Your task to perform on an android device: Go to Wikipedia Image 0: 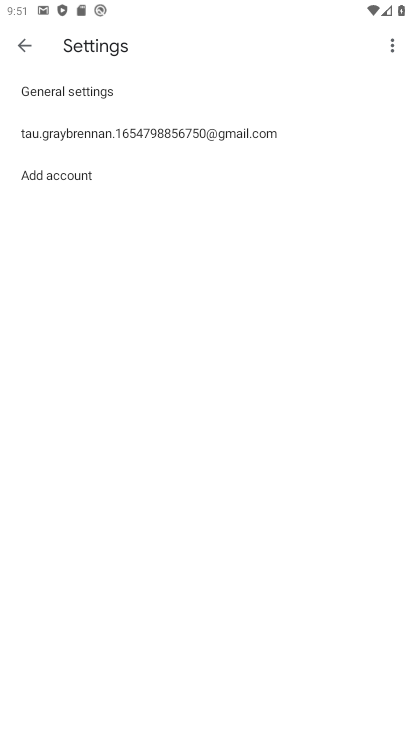
Step 0: press home button
Your task to perform on an android device: Go to Wikipedia Image 1: 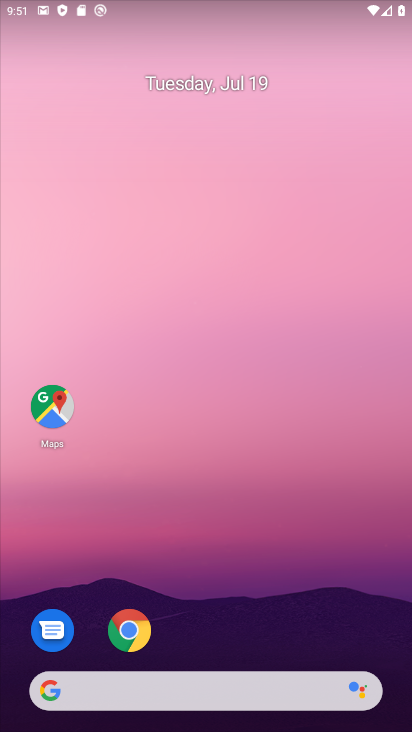
Step 1: click (114, 644)
Your task to perform on an android device: Go to Wikipedia Image 2: 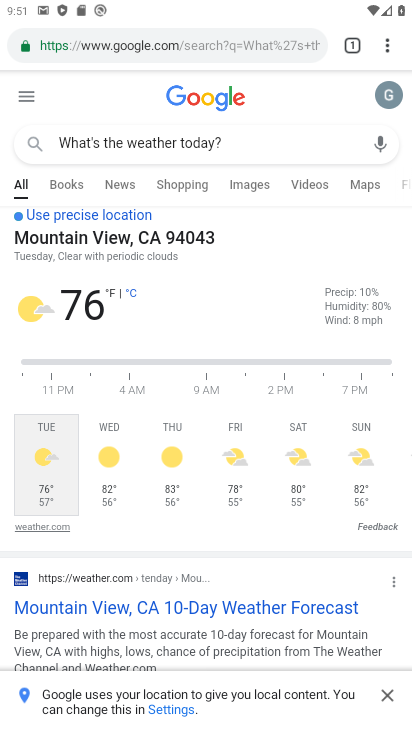
Step 2: click (358, 44)
Your task to perform on an android device: Go to Wikipedia Image 3: 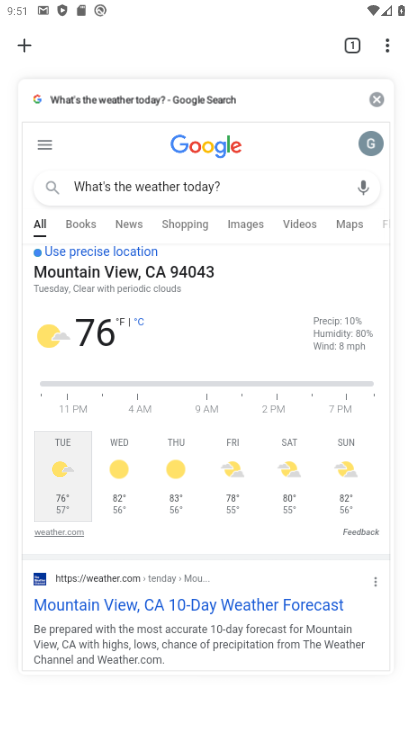
Step 3: click (23, 46)
Your task to perform on an android device: Go to Wikipedia Image 4: 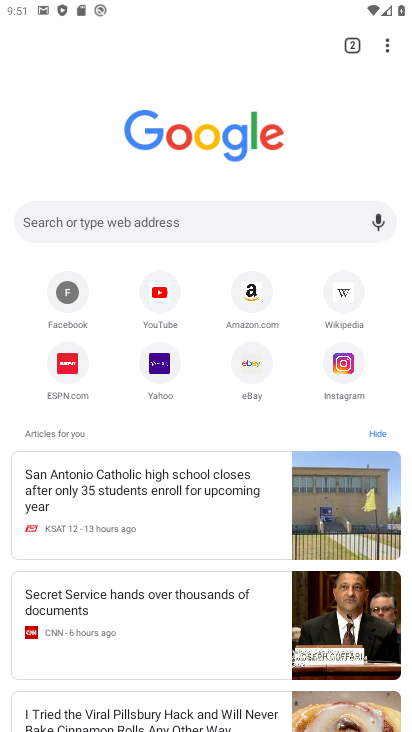
Step 4: click (351, 295)
Your task to perform on an android device: Go to Wikipedia Image 5: 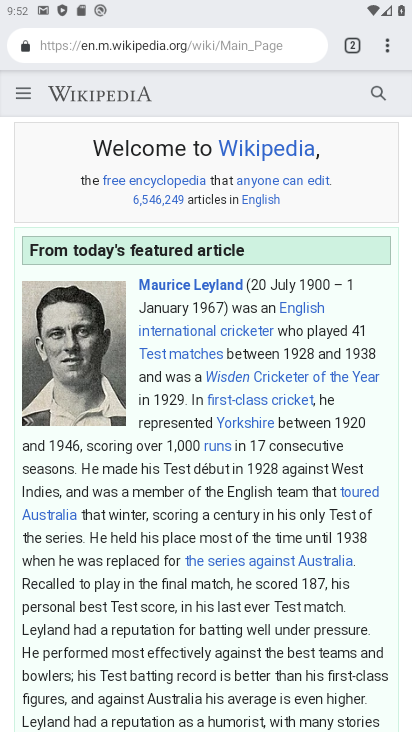
Step 5: task complete